Your task to perform on an android device: Open display settings Image 0: 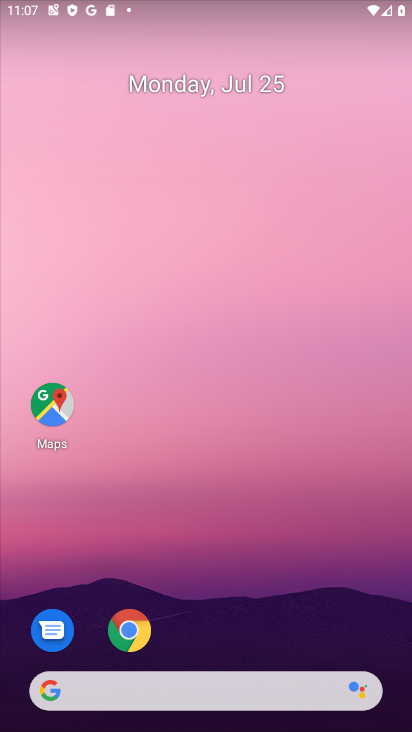
Step 0: drag from (242, 664) to (216, 19)
Your task to perform on an android device: Open display settings Image 1: 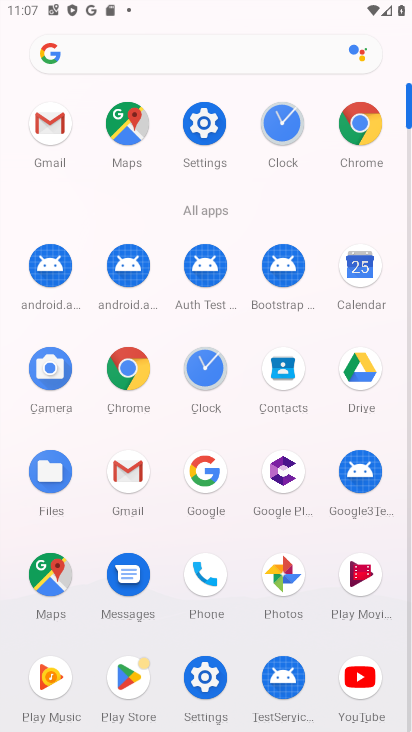
Step 1: click (198, 131)
Your task to perform on an android device: Open display settings Image 2: 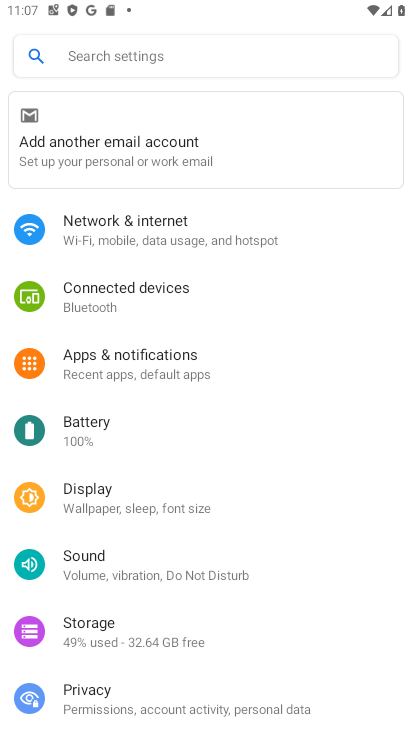
Step 2: click (77, 496)
Your task to perform on an android device: Open display settings Image 3: 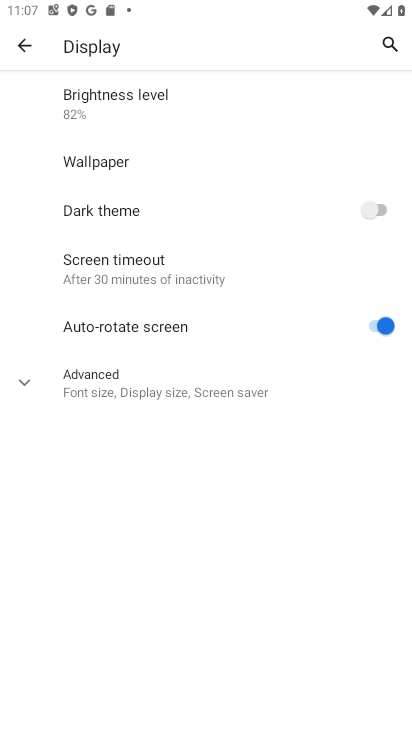
Step 3: click (18, 384)
Your task to perform on an android device: Open display settings Image 4: 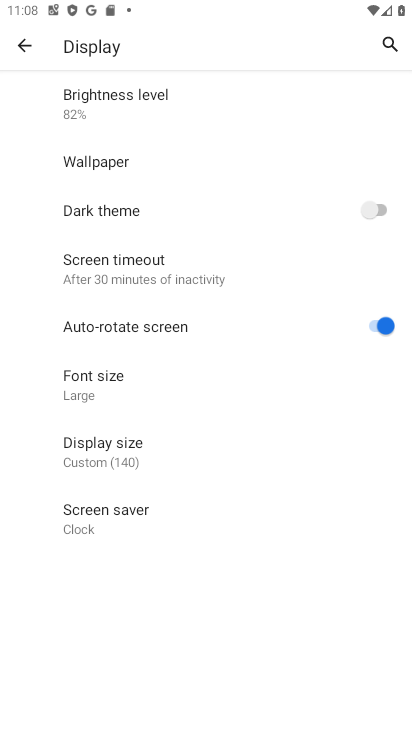
Step 4: task complete